Your task to perform on an android device: What is the recent news? Image 0: 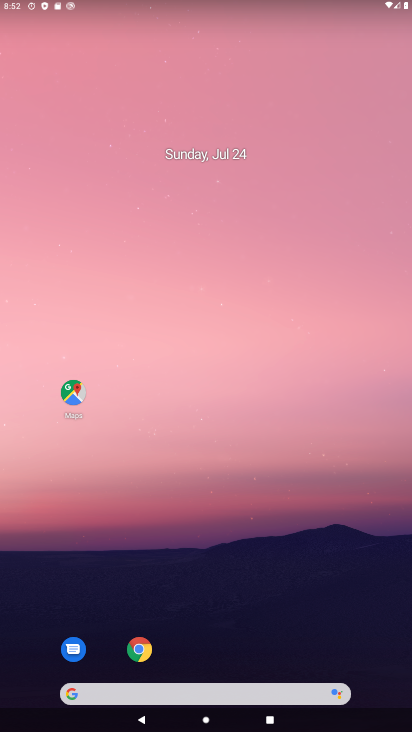
Step 0: drag from (41, 690) to (164, 219)
Your task to perform on an android device: What is the recent news? Image 1: 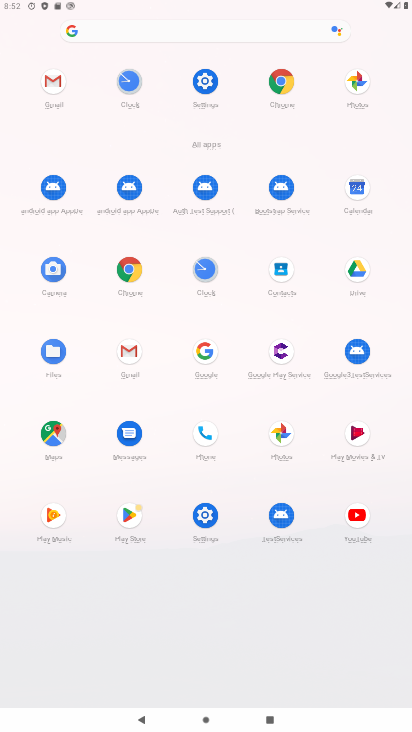
Step 1: click (102, 25)
Your task to perform on an android device: What is the recent news? Image 2: 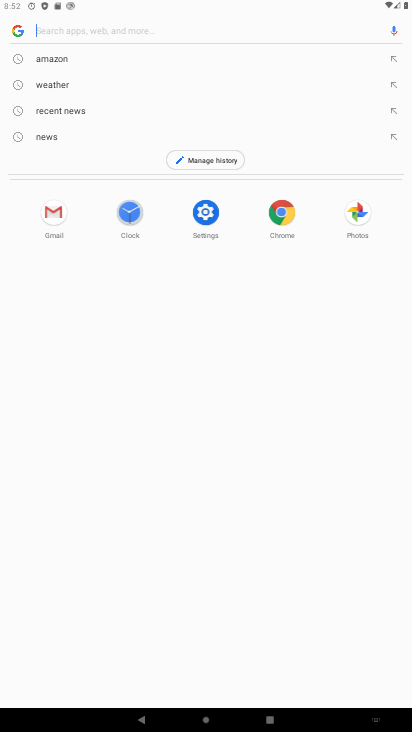
Step 2: type "What is the recent news?"
Your task to perform on an android device: What is the recent news? Image 3: 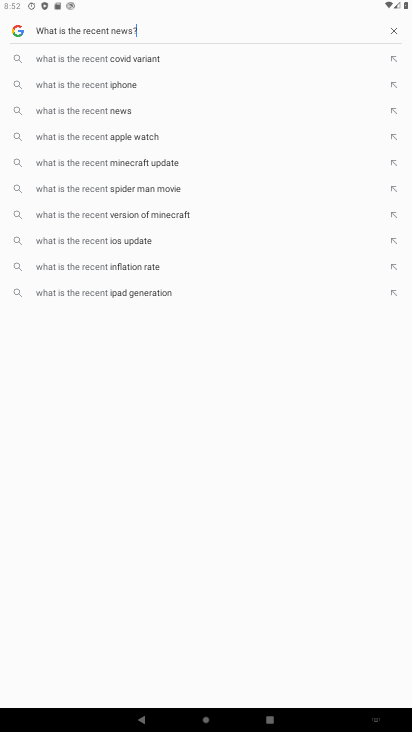
Step 3: type ""
Your task to perform on an android device: What is the recent news? Image 4: 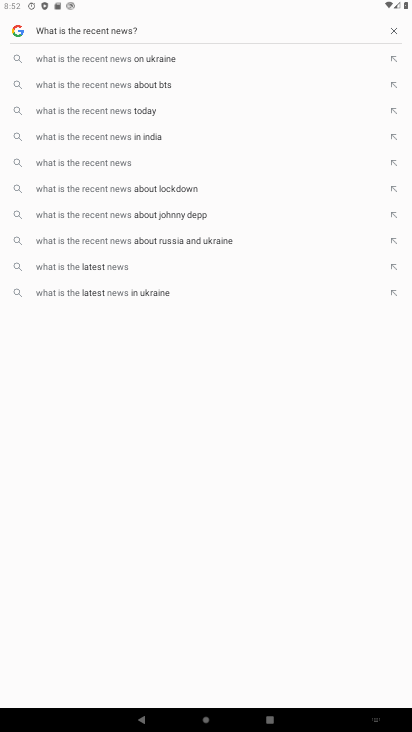
Step 4: type ""
Your task to perform on an android device: What is the recent news? Image 5: 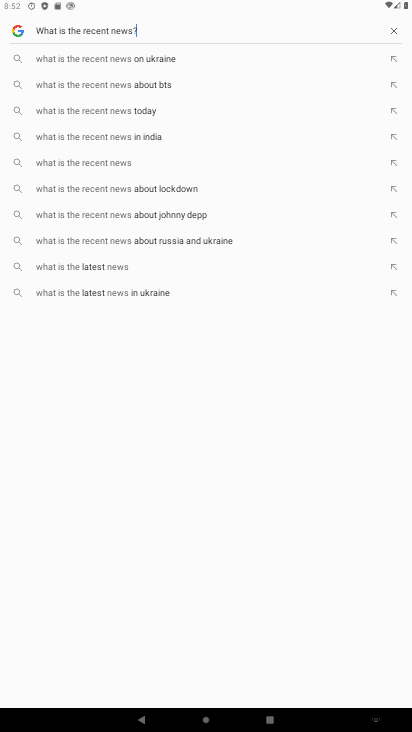
Step 5: type ""
Your task to perform on an android device: What is the recent news? Image 6: 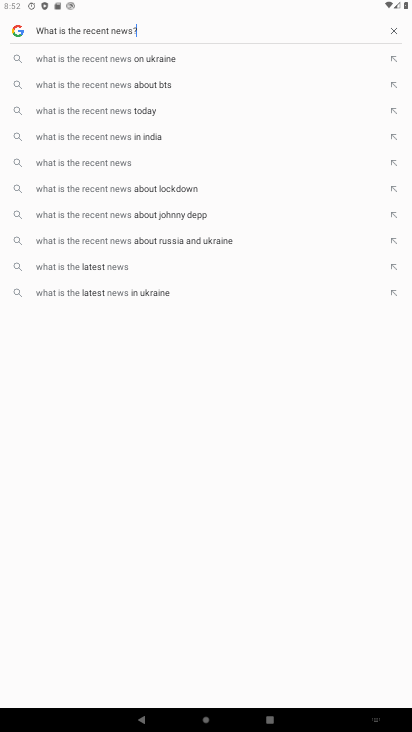
Step 6: type ""
Your task to perform on an android device: What is the recent news? Image 7: 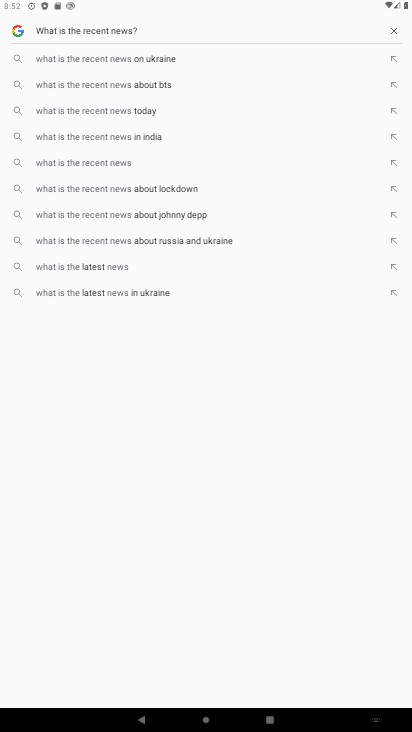
Step 7: type ""
Your task to perform on an android device: What is the recent news? Image 8: 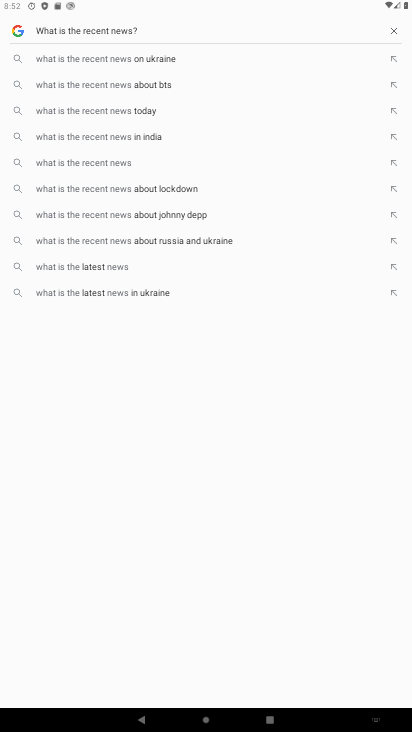
Step 8: type ""
Your task to perform on an android device: What is the recent news? Image 9: 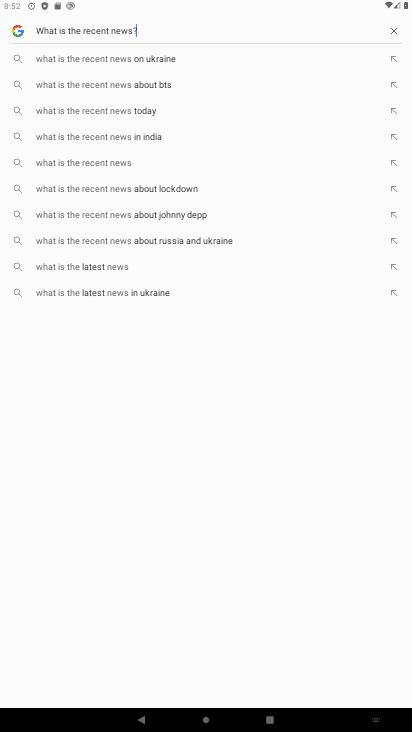
Step 9: type ""
Your task to perform on an android device: What is the recent news? Image 10: 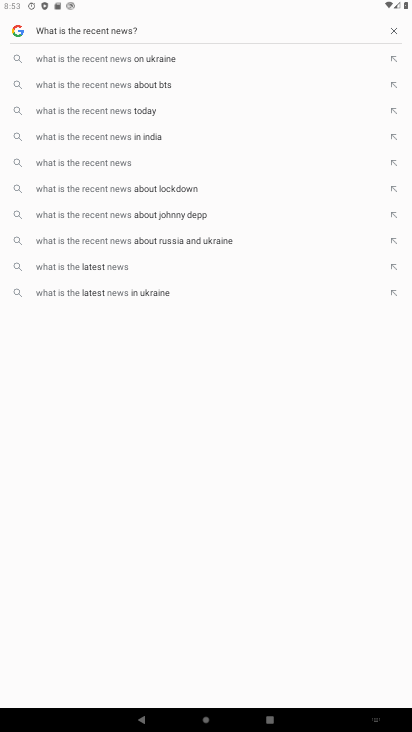
Step 10: task complete